Your task to perform on an android device: Open Chrome and go to the settings page Image 0: 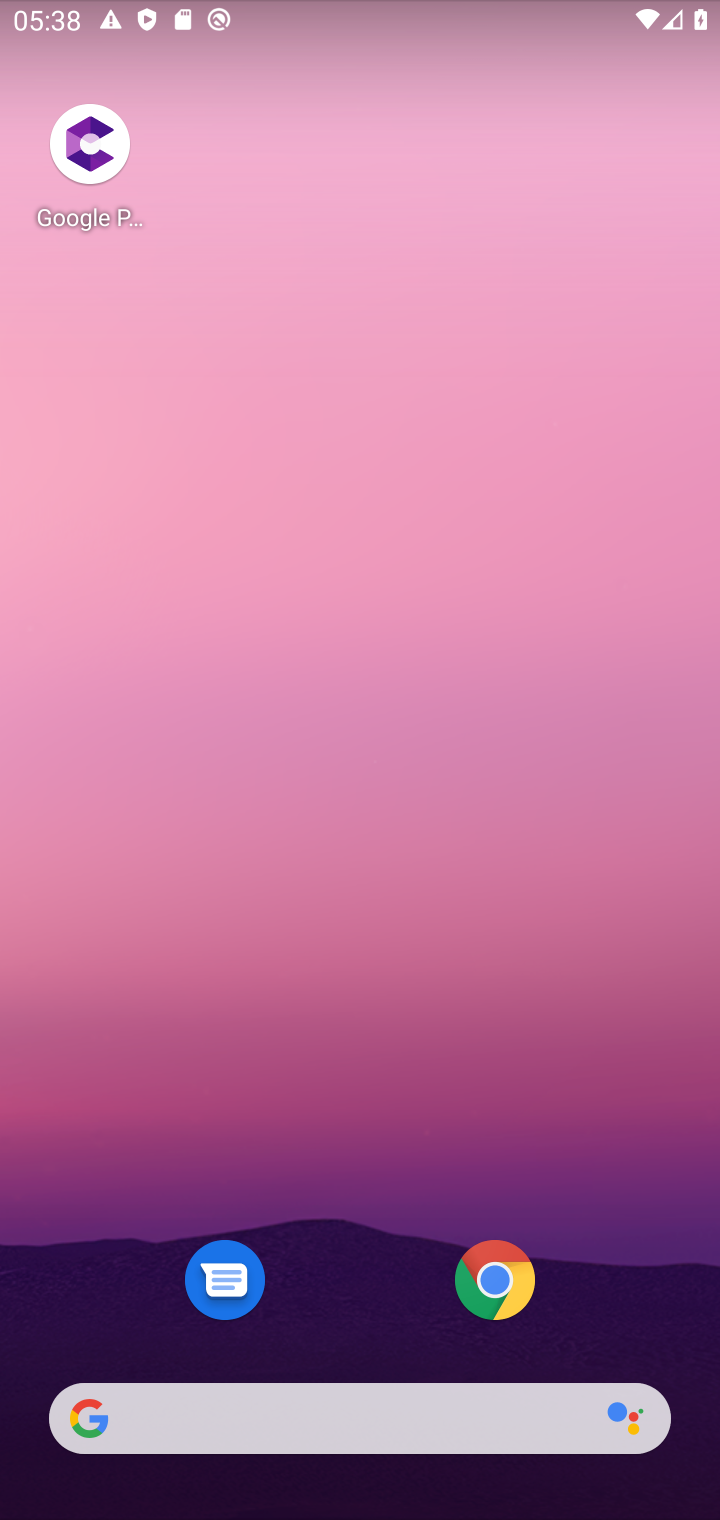
Step 0: click (496, 1301)
Your task to perform on an android device: Open Chrome and go to the settings page Image 1: 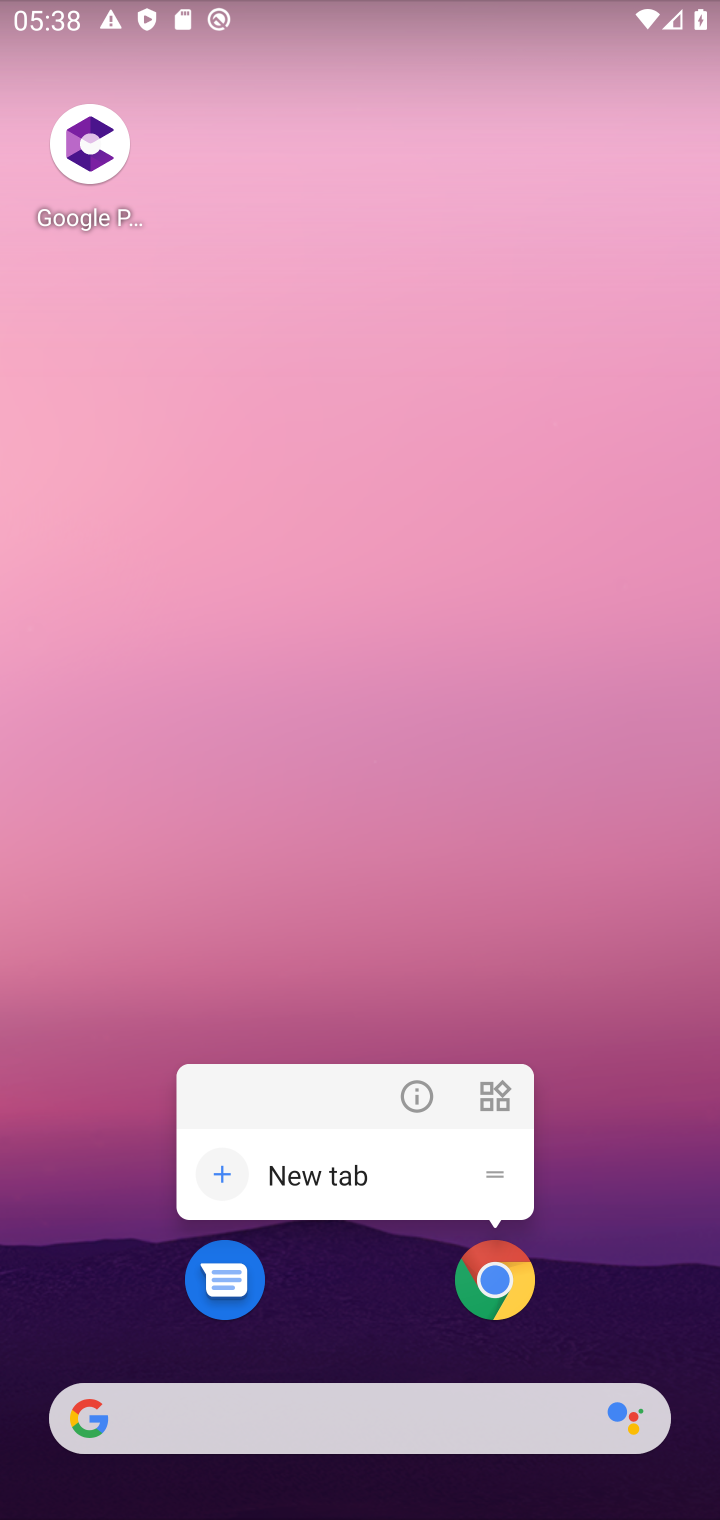
Step 1: click (484, 1324)
Your task to perform on an android device: Open Chrome and go to the settings page Image 2: 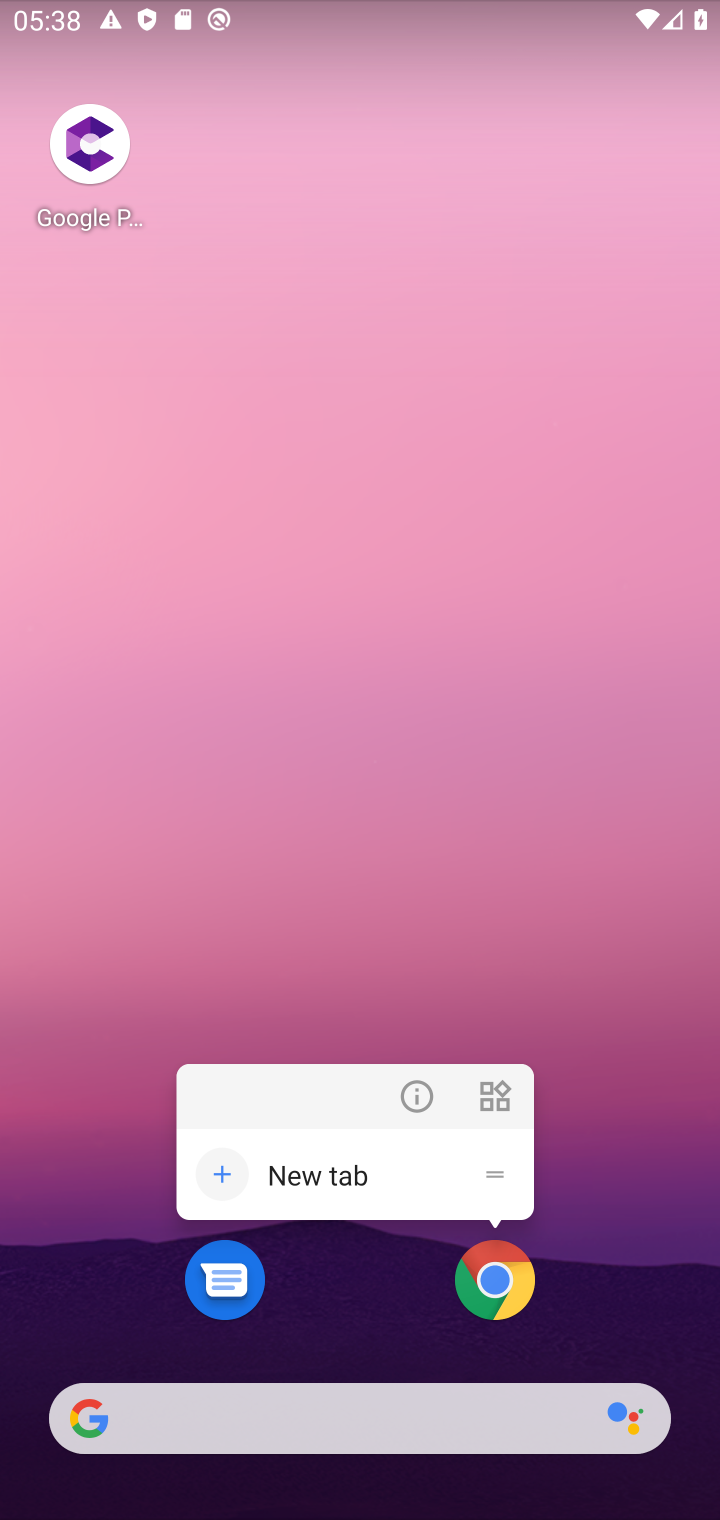
Step 2: click (488, 1299)
Your task to perform on an android device: Open Chrome and go to the settings page Image 3: 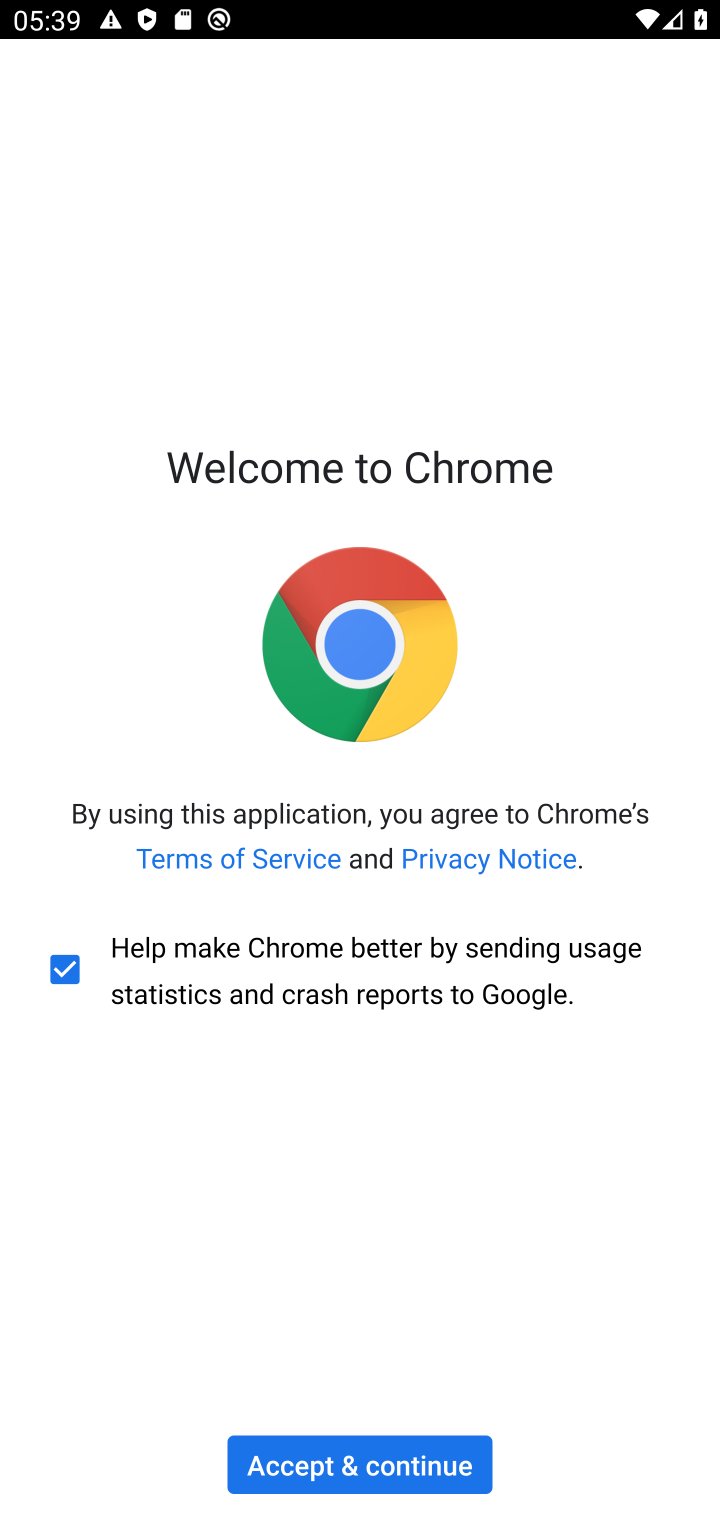
Step 3: click (447, 1456)
Your task to perform on an android device: Open Chrome and go to the settings page Image 4: 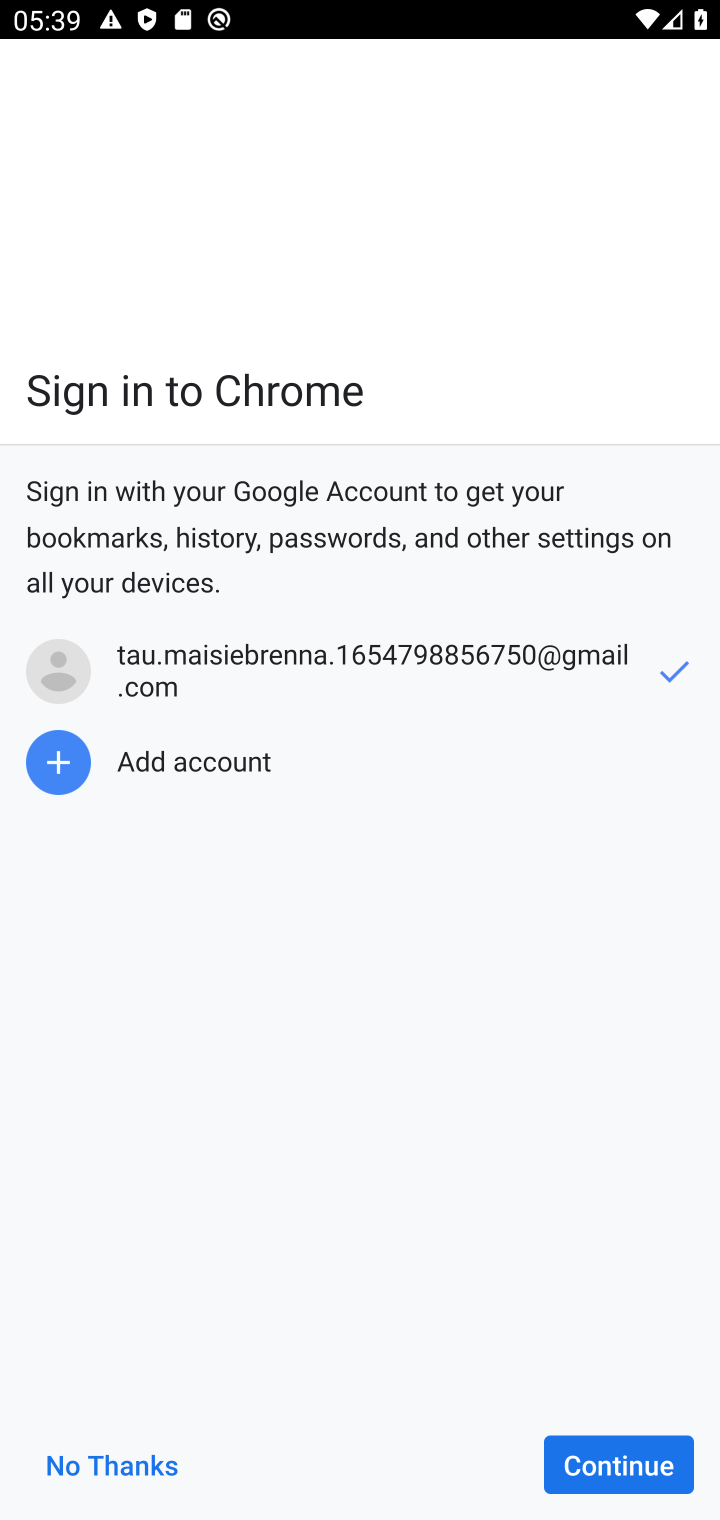
Step 4: click (567, 1483)
Your task to perform on an android device: Open Chrome and go to the settings page Image 5: 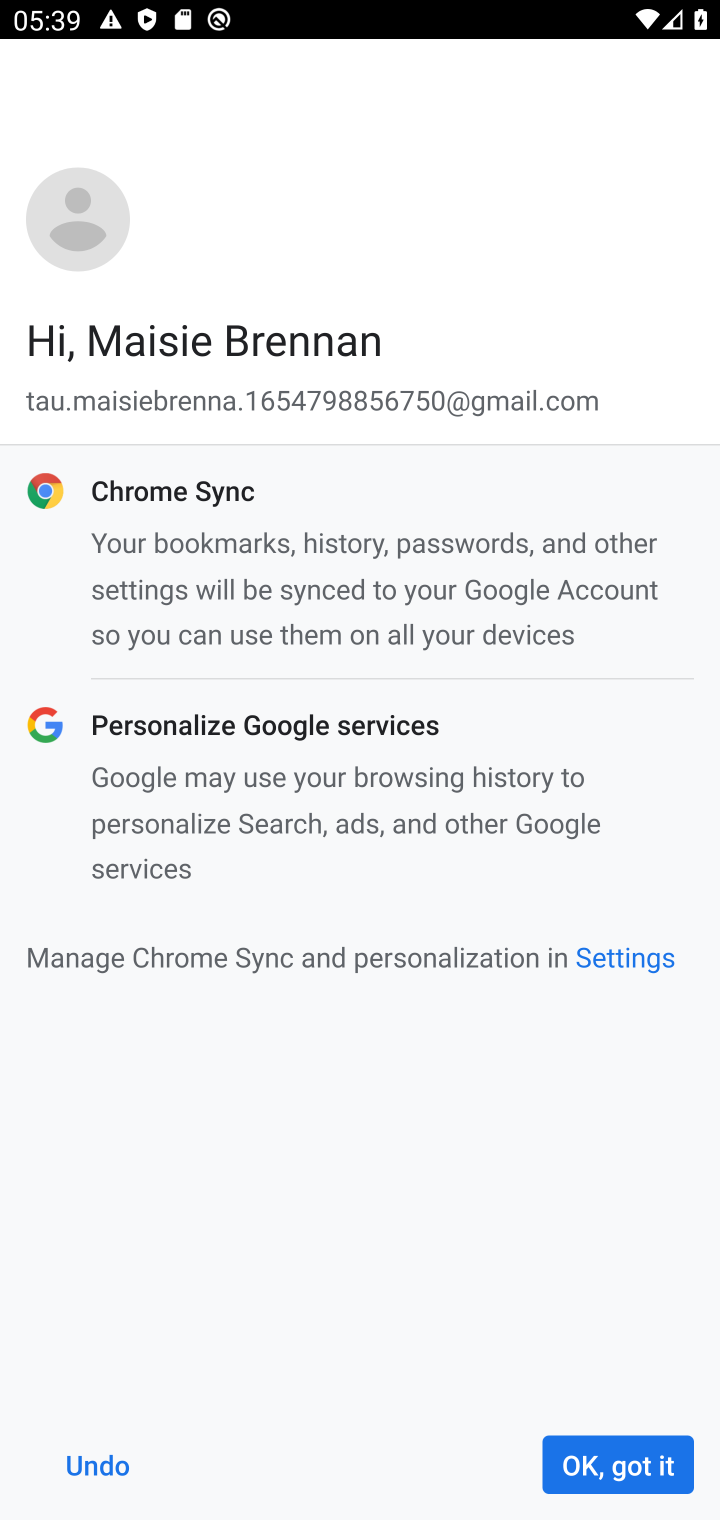
Step 5: click (567, 1483)
Your task to perform on an android device: Open Chrome and go to the settings page Image 6: 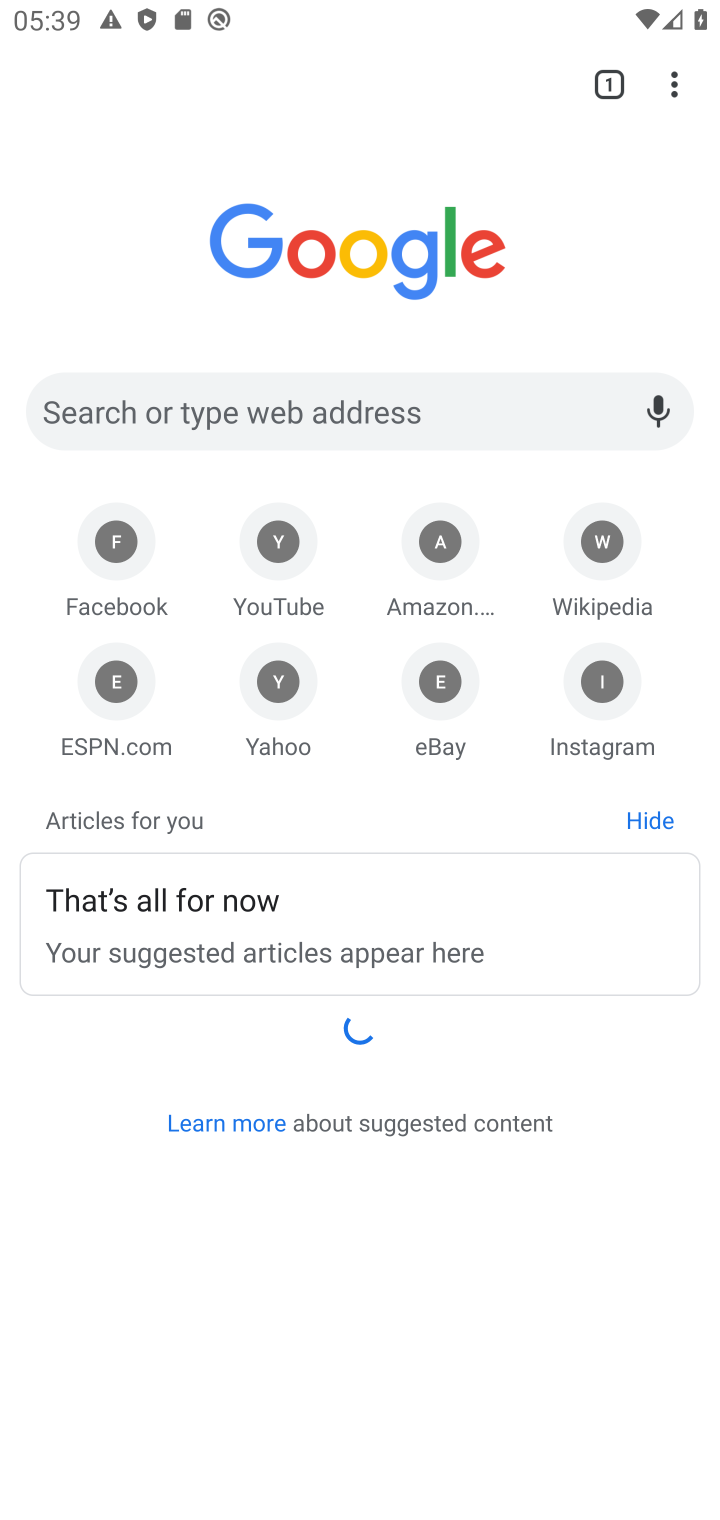
Step 6: task complete